Your task to perform on an android device: turn on sleep mode Image 0: 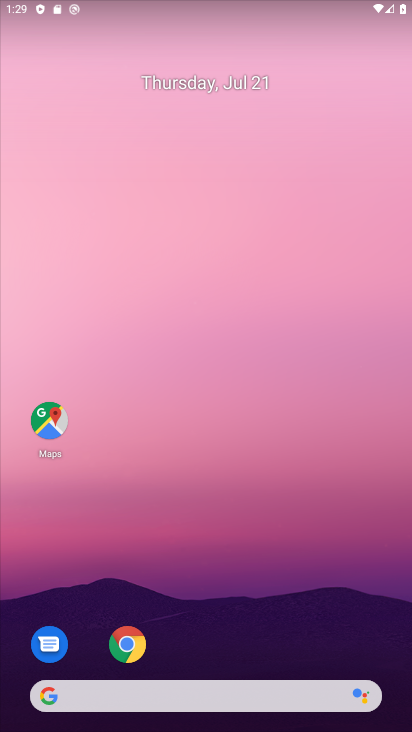
Step 0: drag from (305, 636) to (314, 11)
Your task to perform on an android device: turn on sleep mode Image 1: 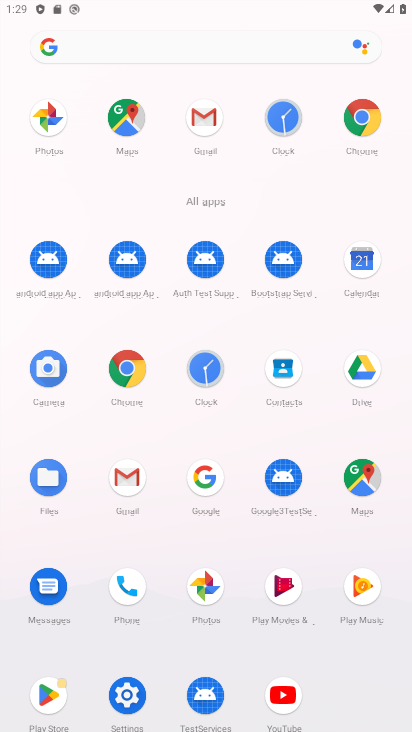
Step 1: click (129, 685)
Your task to perform on an android device: turn on sleep mode Image 2: 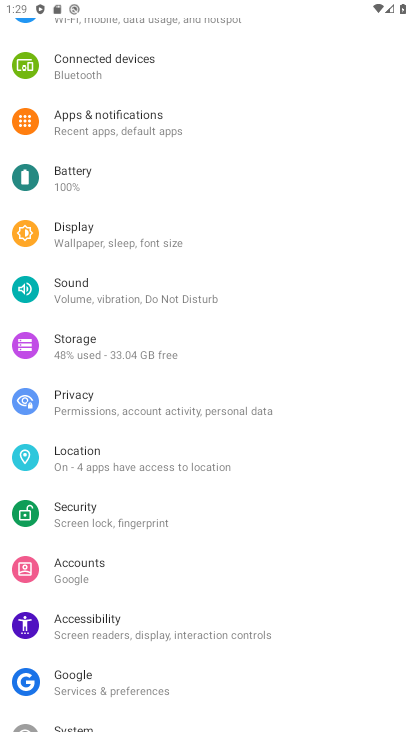
Step 2: click (168, 235)
Your task to perform on an android device: turn on sleep mode Image 3: 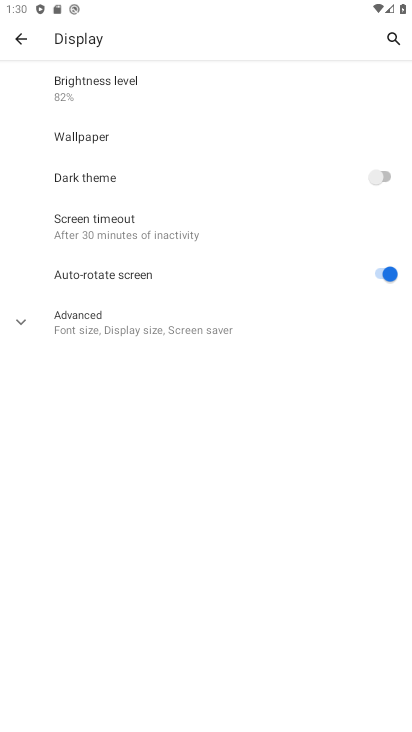
Step 3: click (222, 333)
Your task to perform on an android device: turn on sleep mode Image 4: 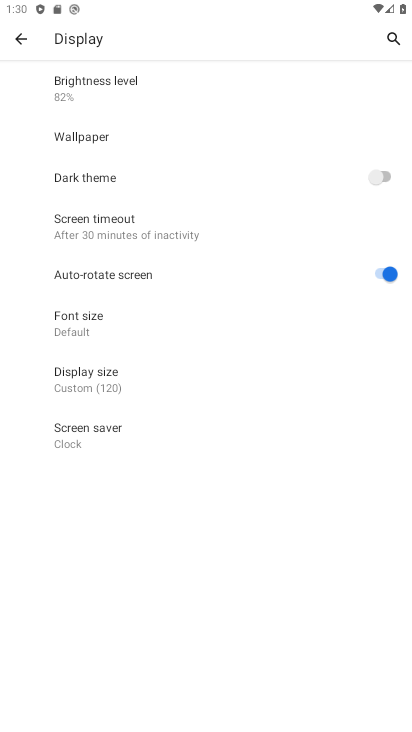
Step 4: task complete